Your task to perform on an android device: toggle pop-ups in chrome Image 0: 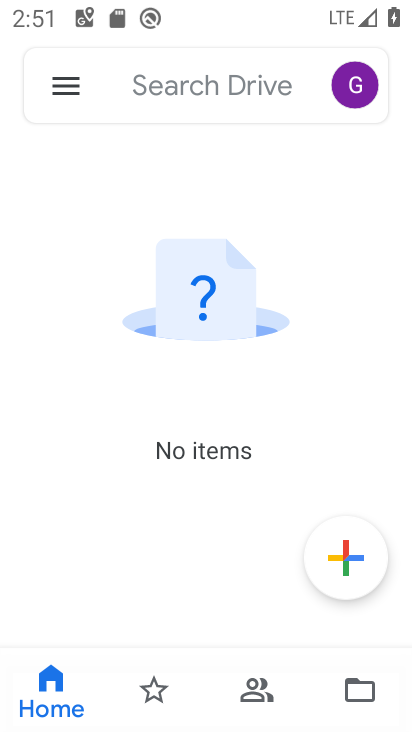
Step 0: press home button
Your task to perform on an android device: toggle pop-ups in chrome Image 1: 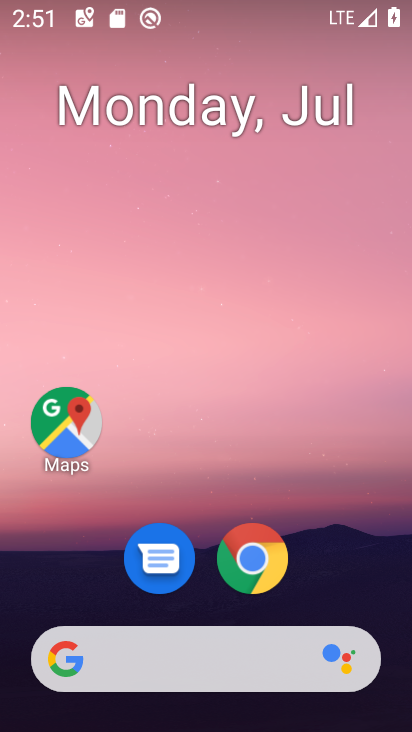
Step 1: drag from (380, 564) to (349, 126)
Your task to perform on an android device: toggle pop-ups in chrome Image 2: 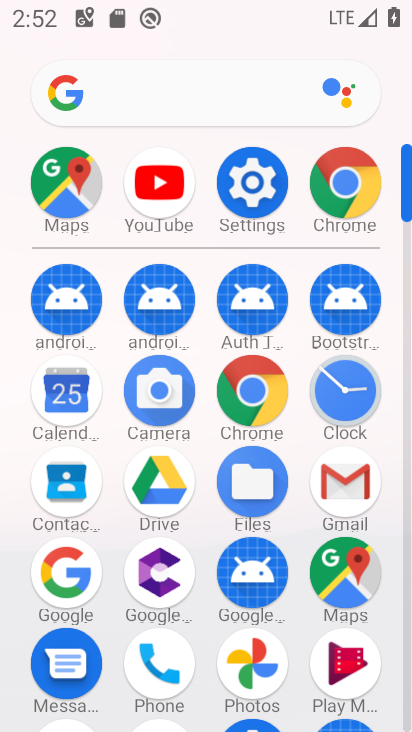
Step 2: click (264, 406)
Your task to perform on an android device: toggle pop-ups in chrome Image 3: 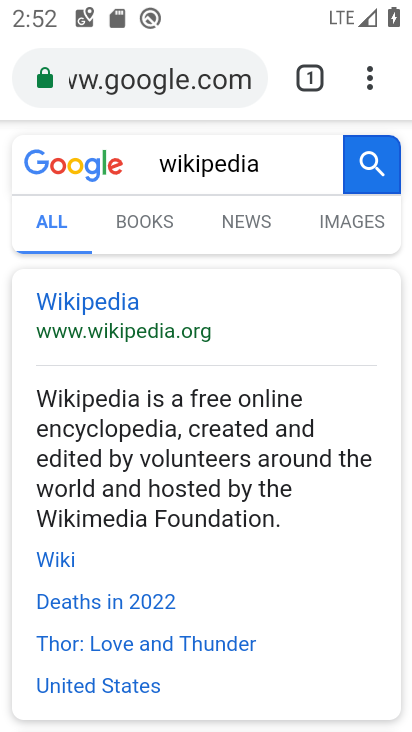
Step 3: click (370, 87)
Your task to perform on an android device: toggle pop-ups in chrome Image 4: 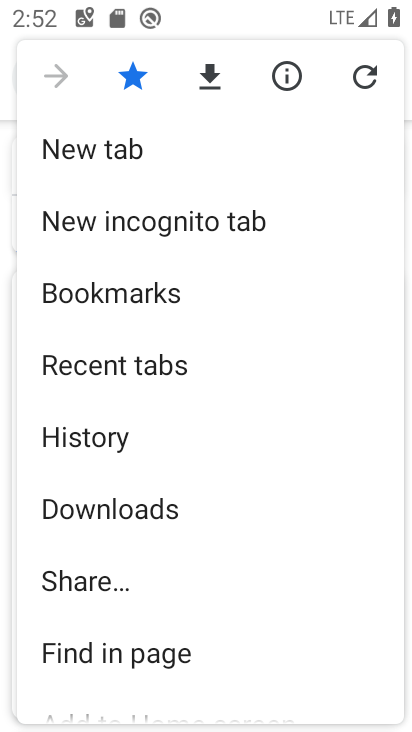
Step 4: drag from (333, 286) to (339, 209)
Your task to perform on an android device: toggle pop-ups in chrome Image 5: 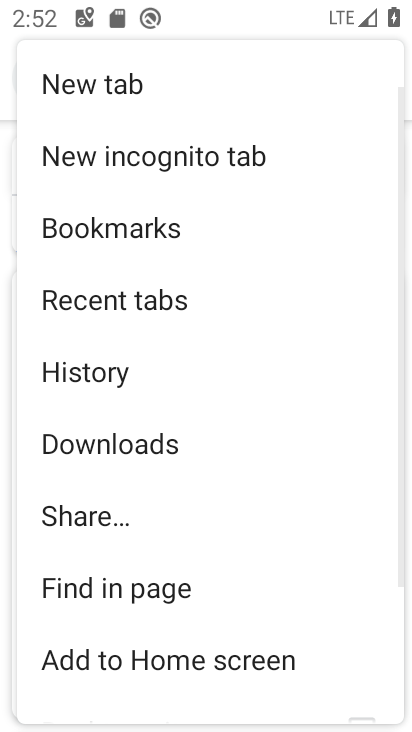
Step 5: drag from (306, 354) to (307, 277)
Your task to perform on an android device: toggle pop-ups in chrome Image 6: 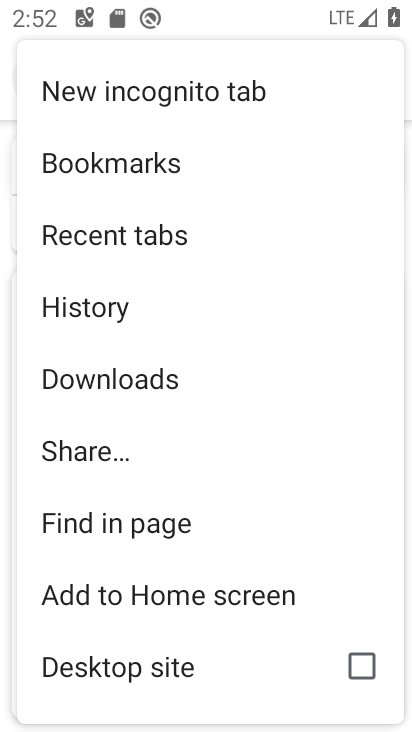
Step 6: drag from (298, 401) to (298, 326)
Your task to perform on an android device: toggle pop-ups in chrome Image 7: 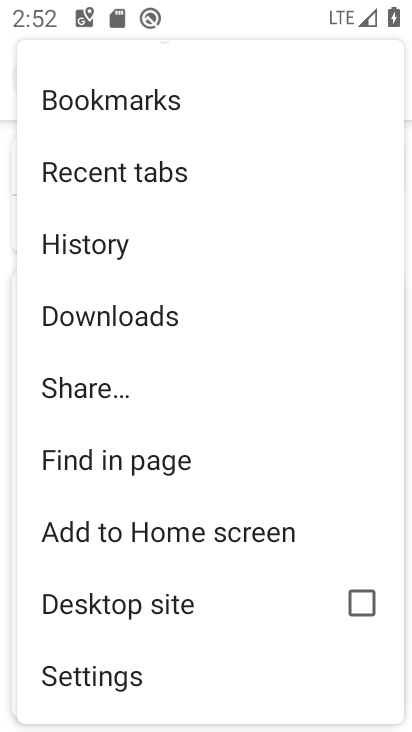
Step 7: click (196, 677)
Your task to perform on an android device: toggle pop-ups in chrome Image 8: 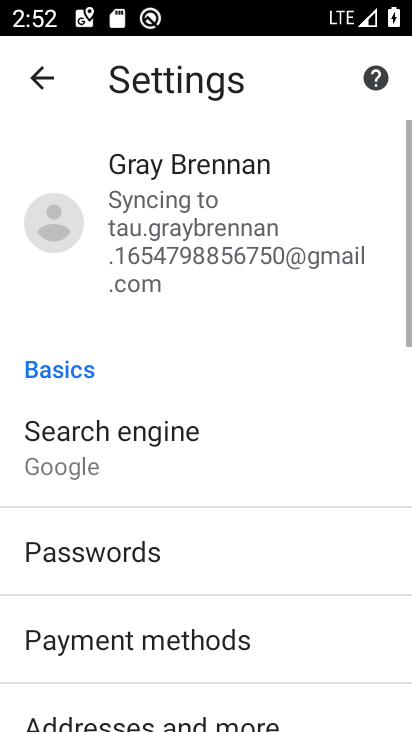
Step 8: drag from (272, 616) to (271, 498)
Your task to perform on an android device: toggle pop-ups in chrome Image 9: 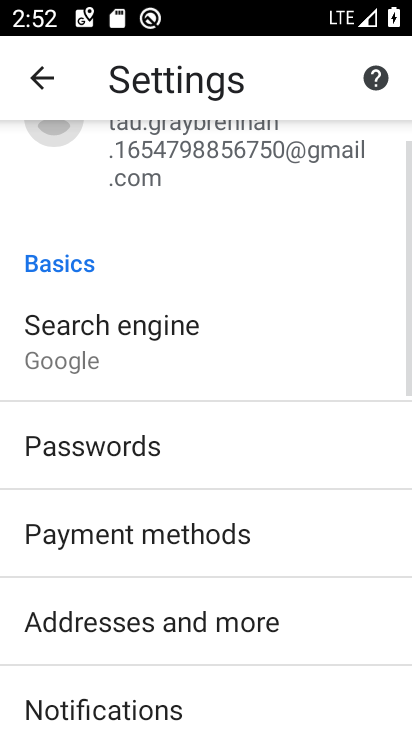
Step 9: drag from (319, 615) to (330, 499)
Your task to perform on an android device: toggle pop-ups in chrome Image 10: 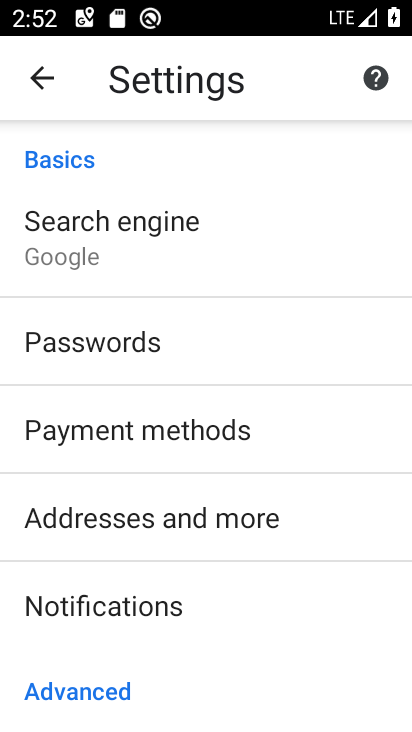
Step 10: drag from (312, 580) to (311, 477)
Your task to perform on an android device: toggle pop-ups in chrome Image 11: 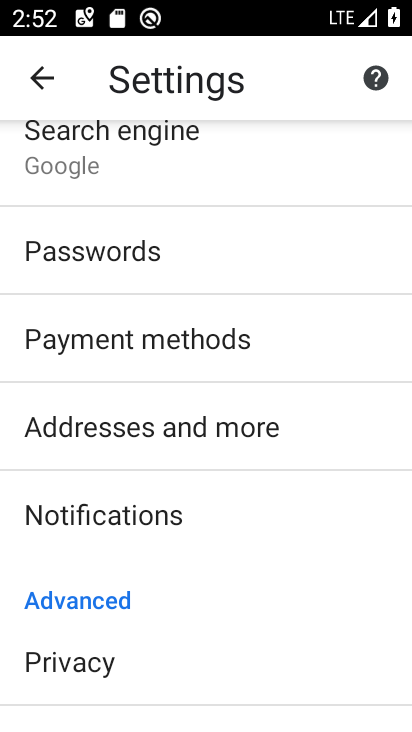
Step 11: drag from (302, 587) to (299, 453)
Your task to perform on an android device: toggle pop-ups in chrome Image 12: 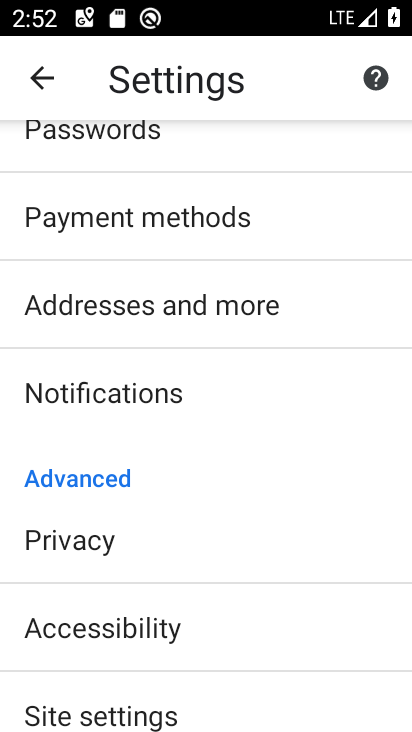
Step 12: drag from (328, 630) to (320, 529)
Your task to perform on an android device: toggle pop-ups in chrome Image 13: 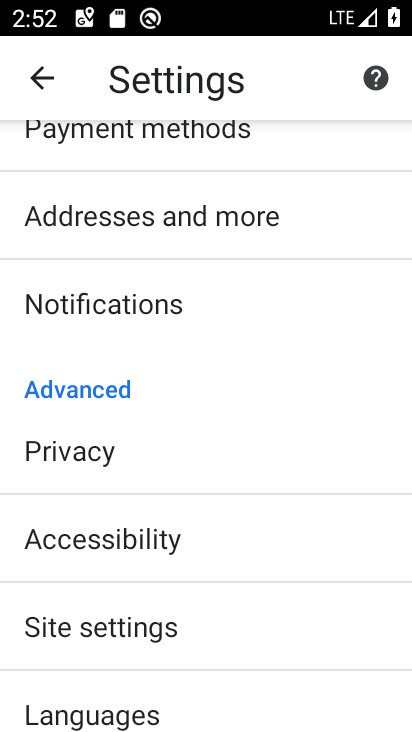
Step 13: click (288, 595)
Your task to perform on an android device: toggle pop-ups in chrome Image 14: 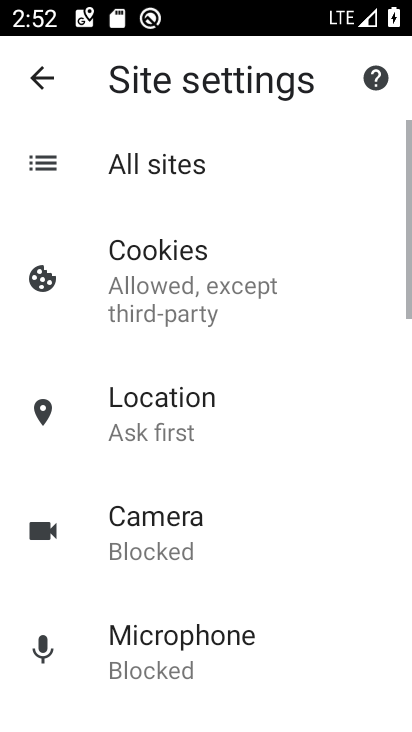
Step 14: drag from (287, 595) to (285, 454)
Your task to perform on an android device: toggle pop-ups in chrome Image 15: 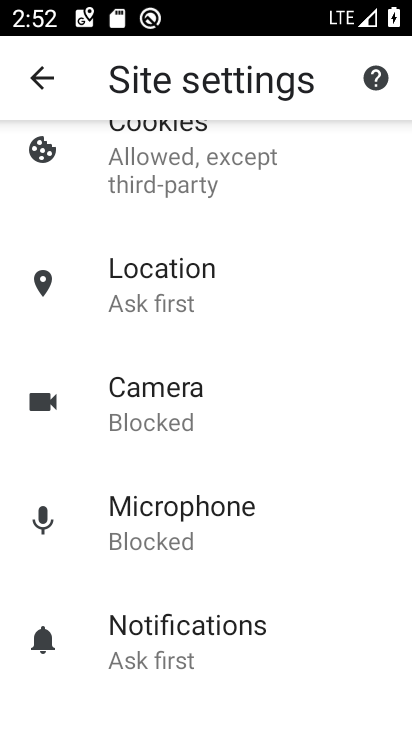
Step 15: drag from (285, 536) to (284, 433)
Your task to perform on an android device: toggle pop-ups in chrome Image 16: 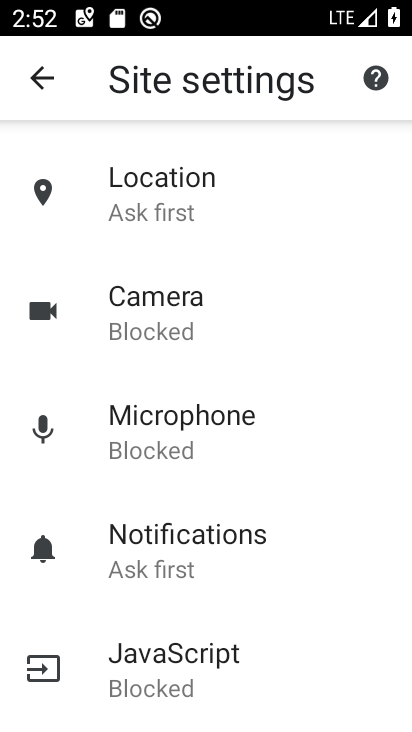
Step 16: drag from (312, 490) to (313, 355)
Your task to perform on an android device: toggle pop-ups in chrome Image 17: 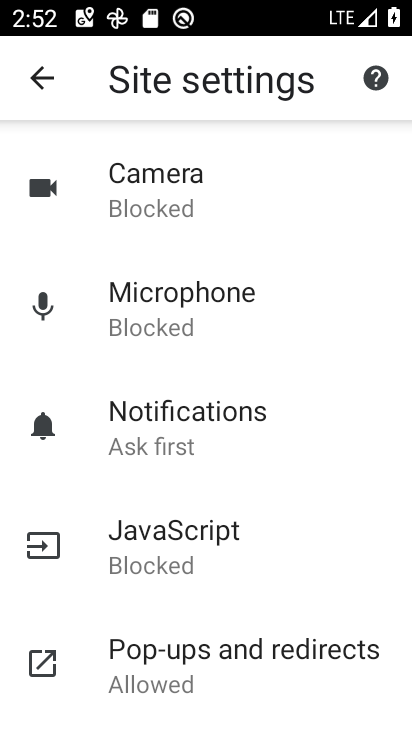
Step 17: drag from (306, 452) to (305, 314)
Your task to perform on an android device: toggle pop-ups in chrome Image 18: 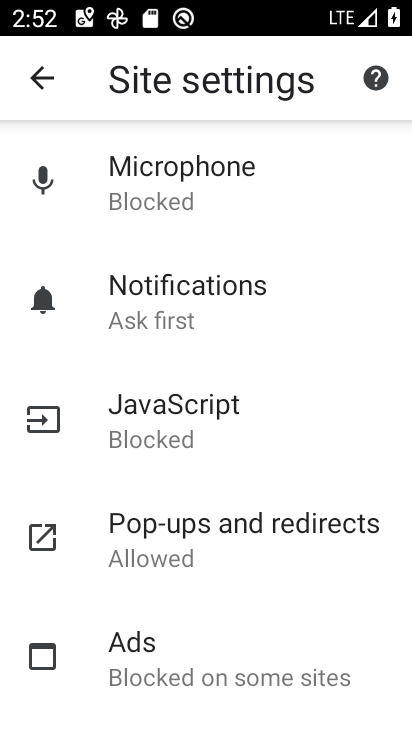
Step 18: drag from (303, 433) to (303, 336)
Your task to perform on an android device: toggle pop-ups in chrome Image 19: 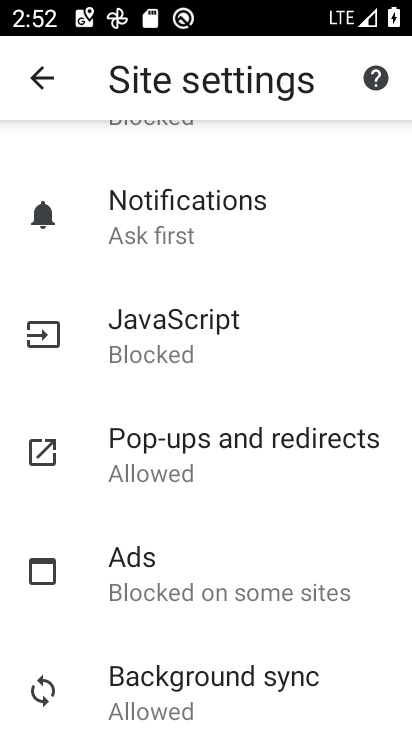
Step 19: click (287, 479)
Your task to perform on an android device: toggle pop-ups in chrome Image 20: 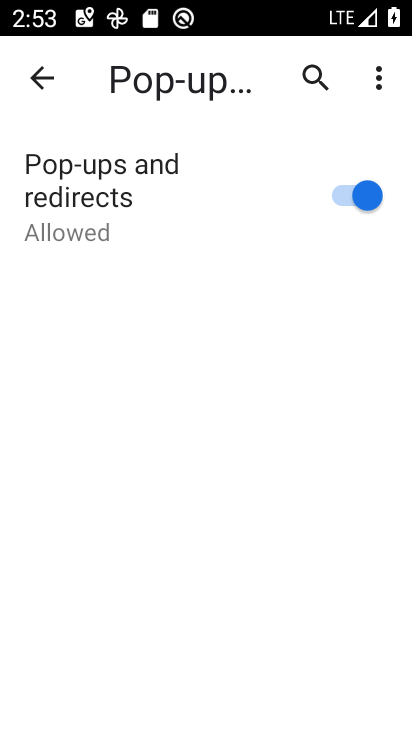
Step 20: click (355, 191)
Your task to perform on an android device: toggle pop-ups in chrome Image 21: 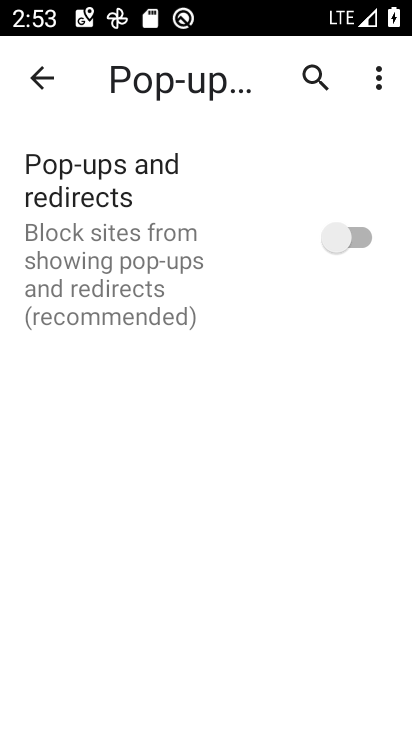
Step 21: task complete